Your task to perform on an android device: Go to accessibility settings Image 0: 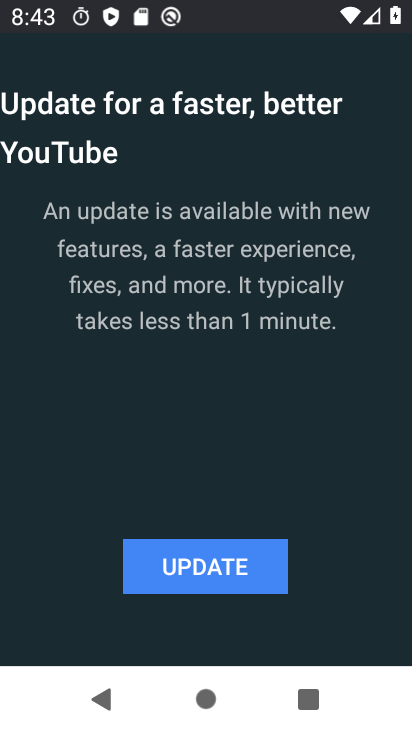
Step 0: press home button
Your task to perform on an android device: Go to accessibility settings Image 1: 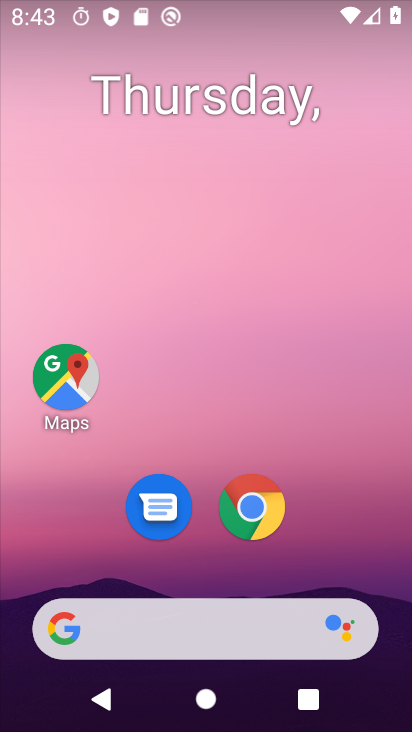
Step 1: drag from (206, 551) to (223, 122)
Your task to perform on an android device: Go to accessibility settings Image 2: 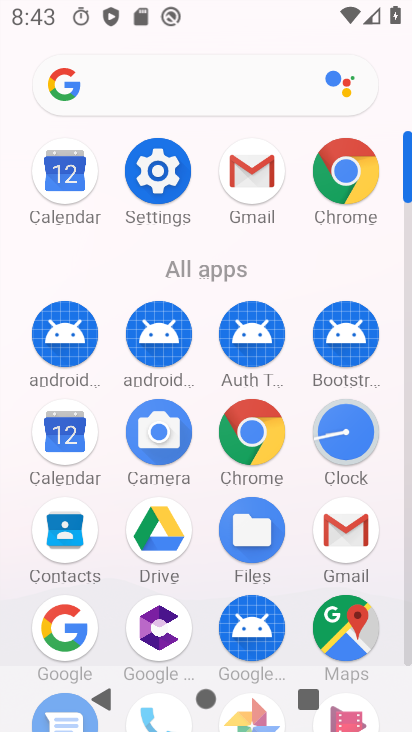
Step 2: click (150, 144)
Your task to perform on an android device: Go to accessibility settings Image 3: 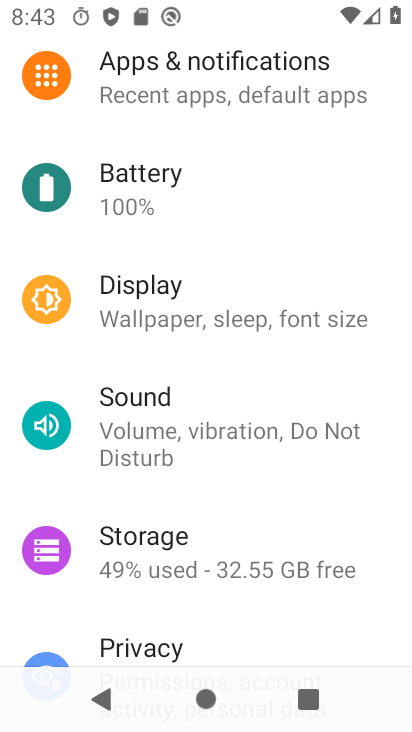
Step 3: drag from (171, 594) to (226, 229)
Your task to perform on an android device: Go to accessibility settings Image 4: 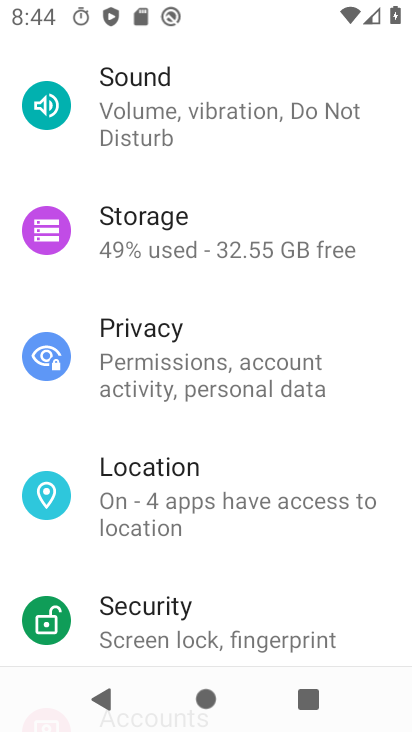
Step 4: drag from (197, 523) to (268, 141)
Your task to perform on an android device: Go to accessibility settings Image 5: 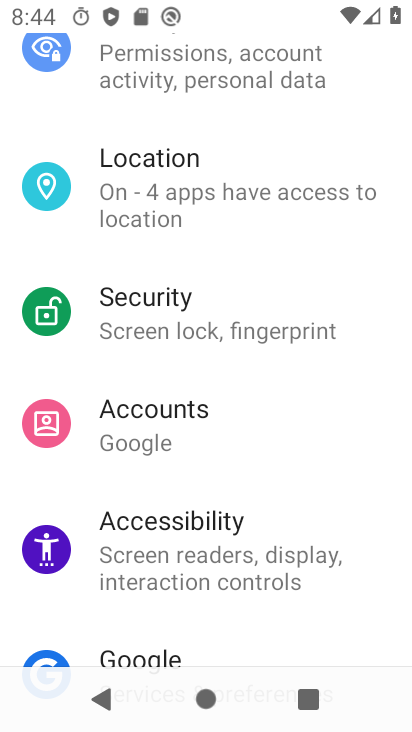
Step 5: click (156, 517)
Your task to perform on an android device: Go to accessibility settings Image 6: 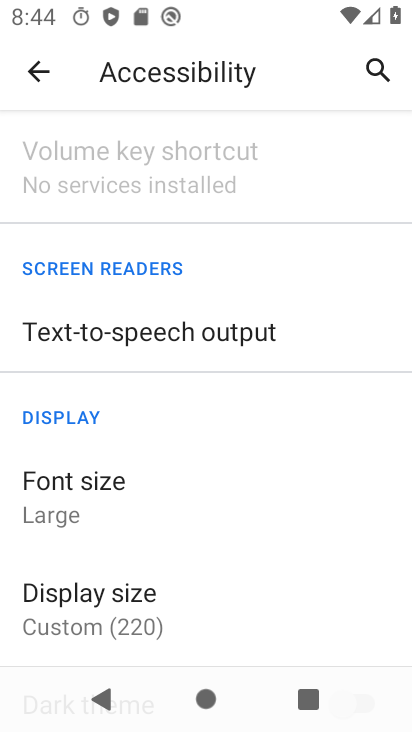
Step 6: task complete